Your task to perform on an android device: add a label to a message in the gmail app Image 0: 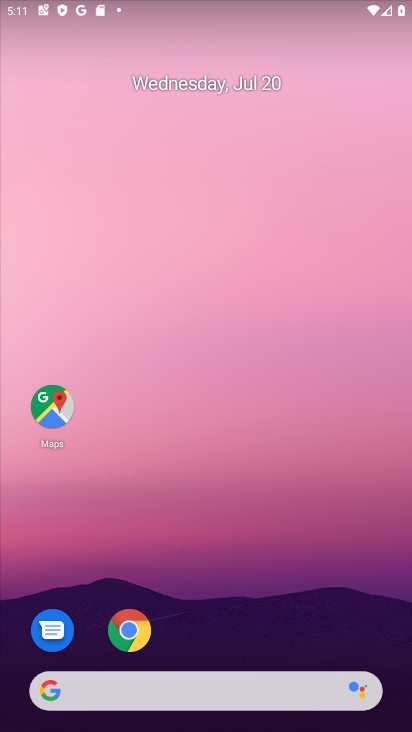
Step 0: drag from (189, 699) to (141, 109)
Your task to perform on an android device: add a label to a message in the gmail app Image 1: 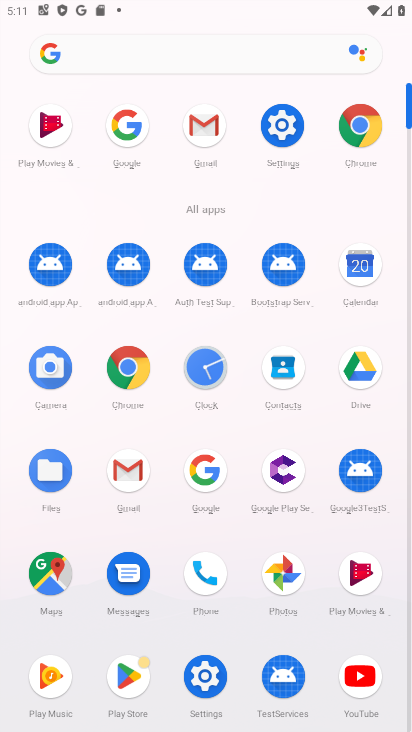
Step 1: click (202, 124)
Your task to perform on an android device: add a label to a message in the gmail app Image 2: 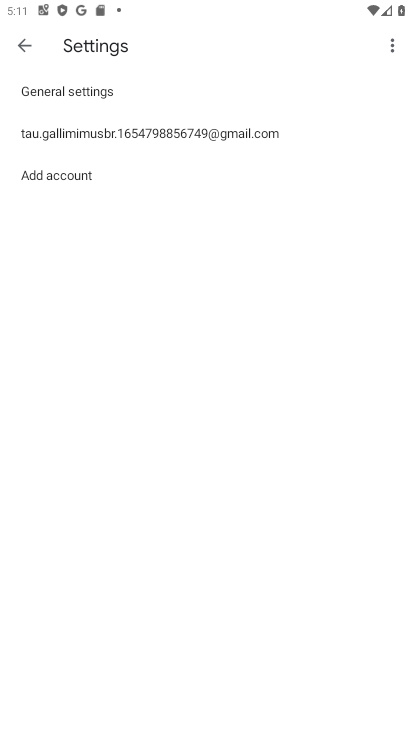
Step 2: press back button
Your task to perform on an android device: add a label to a message in the gmail app Image 3: 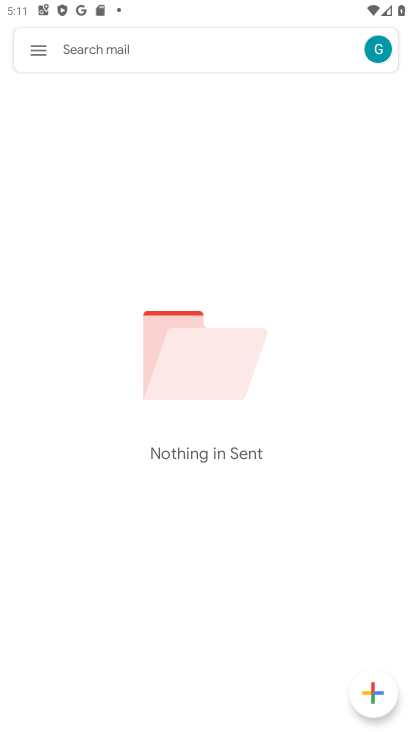
Step 3: click (39, 49)
Your task to perform on an android device: add a label to a message in the gmail app Image 4: 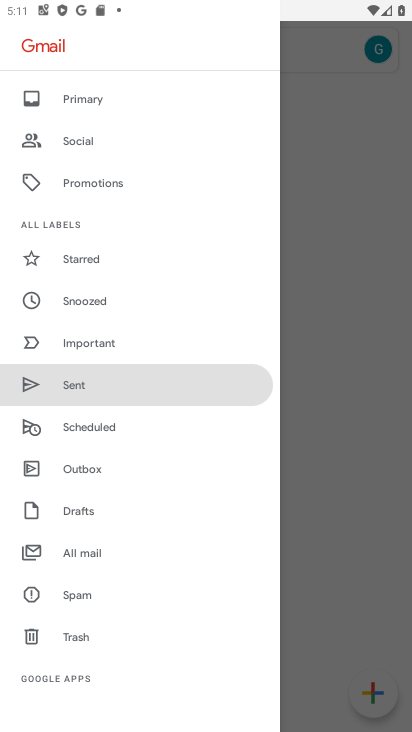
Step 4: click (77, 254)
Your task to perform on an android device: add a label to a message in the gmail app Image 5: 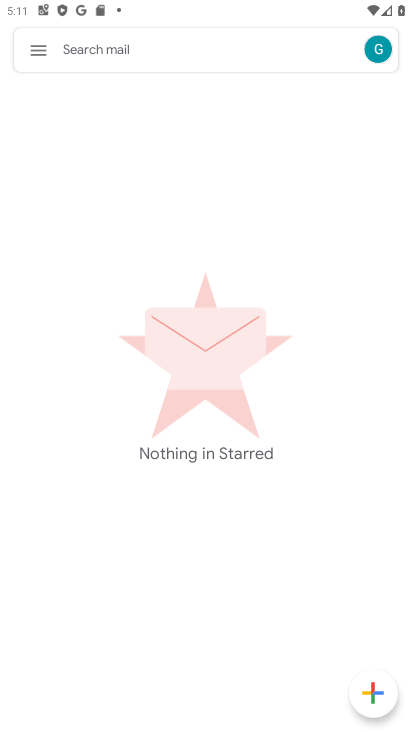
Step 5: click (38, 49)
Your task to perform on an android device: add a label to a message in the gmail app Image 6: 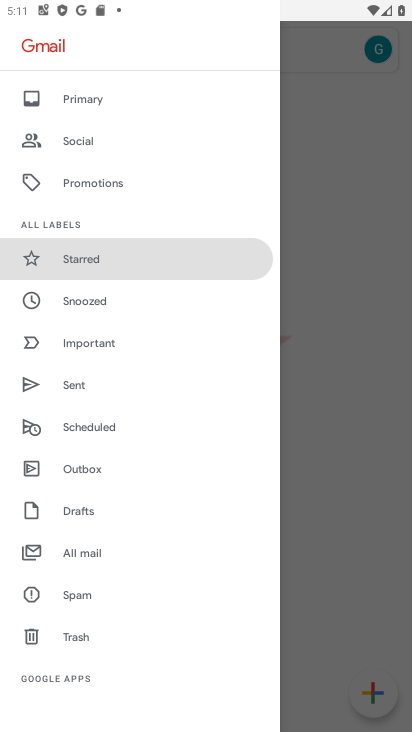
Step 6: click (78, 294)
Your task to perform on an android device: add a label to a message in the gmail app Image 7: 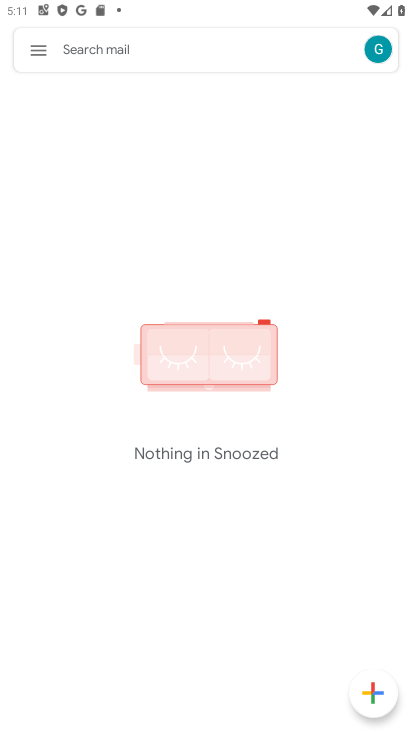
Step 7: click (33, 51)
Your task to perform on an android device: add a label to a message in the gmail app Image 8: 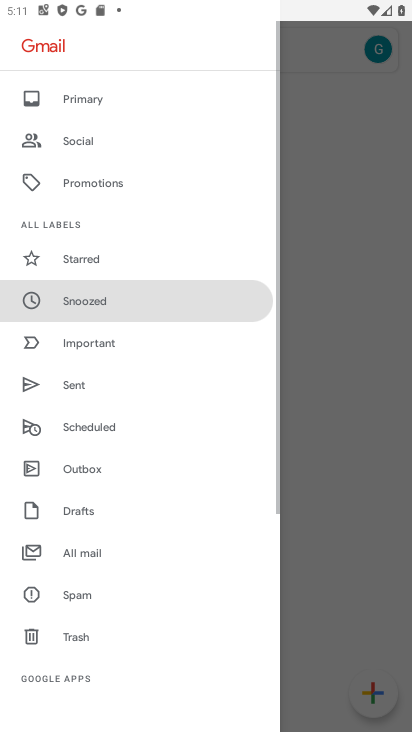
Step 8: click (71, 347)
Your task to perform on an android device: add a label to a message in the gmail app Image 9: 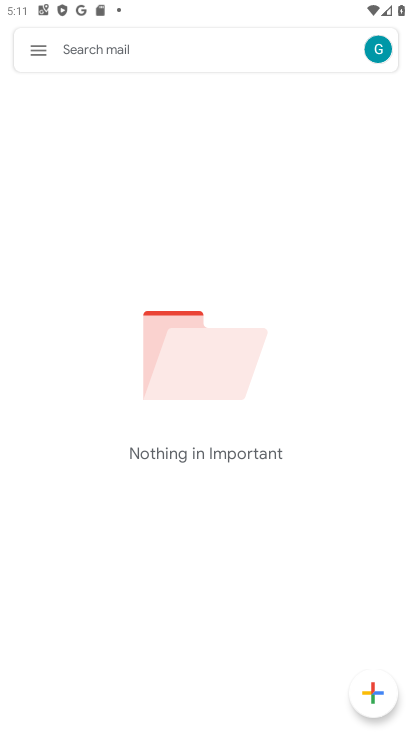
Step 9: click (37, 46)
Your task to perform on an android device: add a label to a message in the gmail app Image 10: 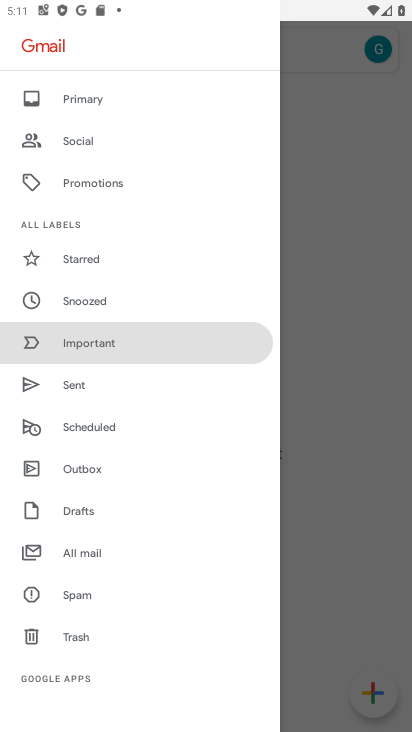
Step 10: click (77, 389)
Your task to perform on an android device: add a label to a message in the gmail app Image 11: 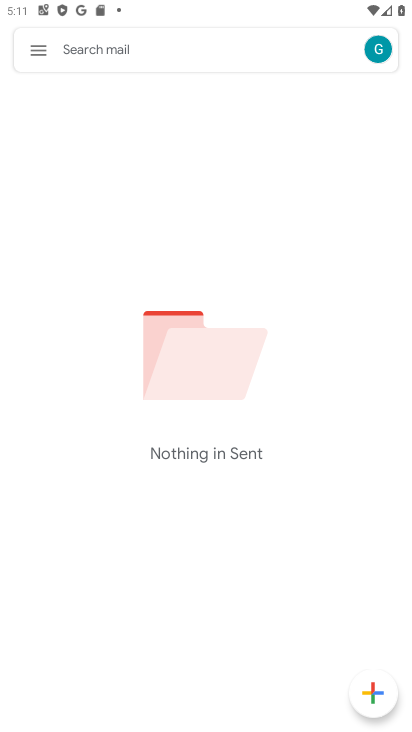
Step 11: click (39, 51)
Your task to perform on an android device: add a label to a message in the gmail app Image 12: 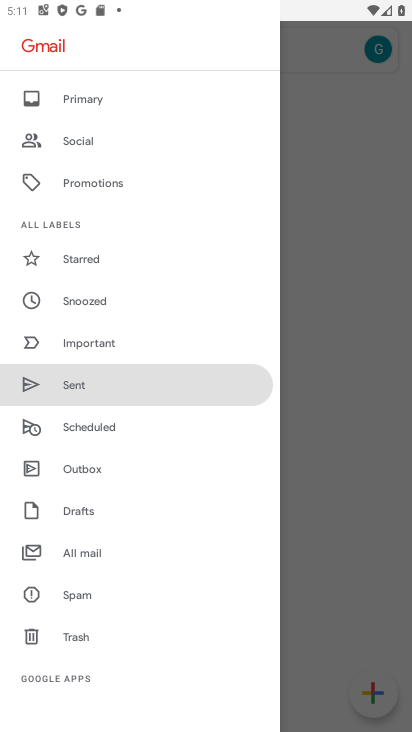
Step 12: click (82, 426)
Your task to perform on an android device: add a label to a message in the gmail app Image 13: 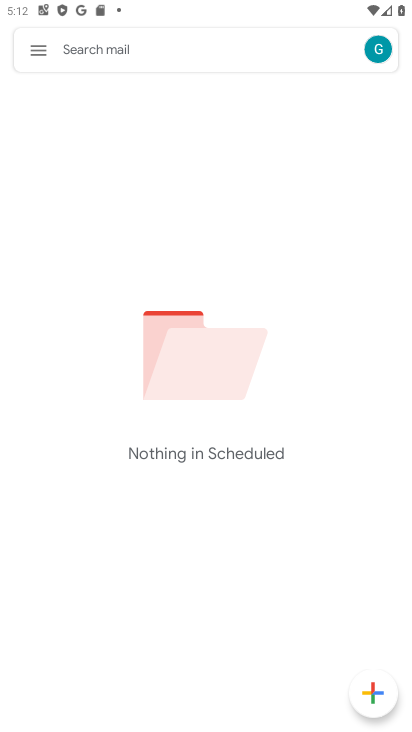
Step 13: click (44, 49)
Your task to perform on an android device: add a label to a message in the gmail app Image 14: 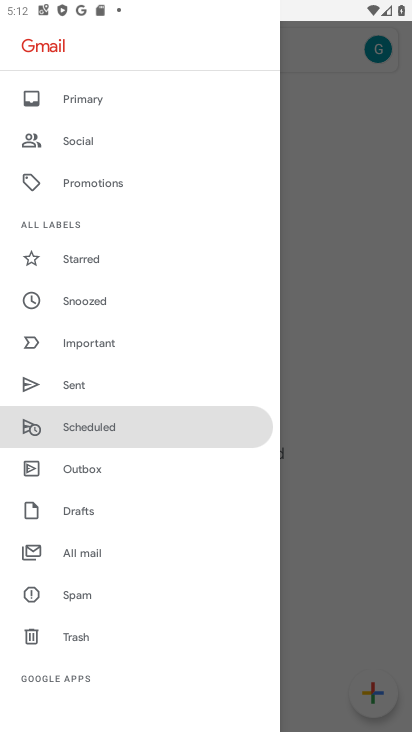
Step 14: click (73, 469)
Your task to perform on an android device: add a label to a message in the gmail app Image 15: 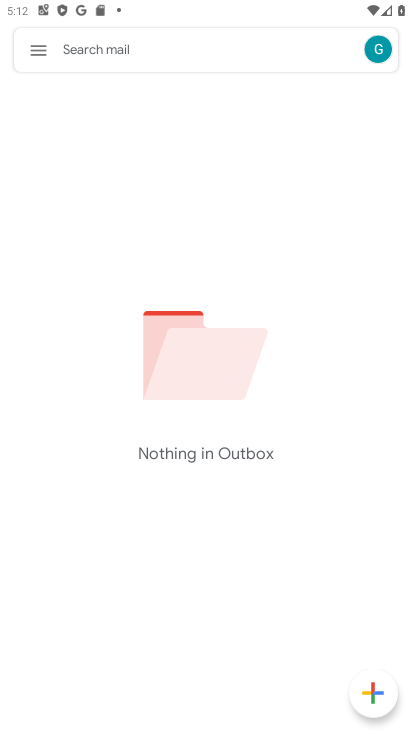
Step 15: click (33, 51)
Your task to perform on an android device: add a label to a message in the gmail app Image 16: 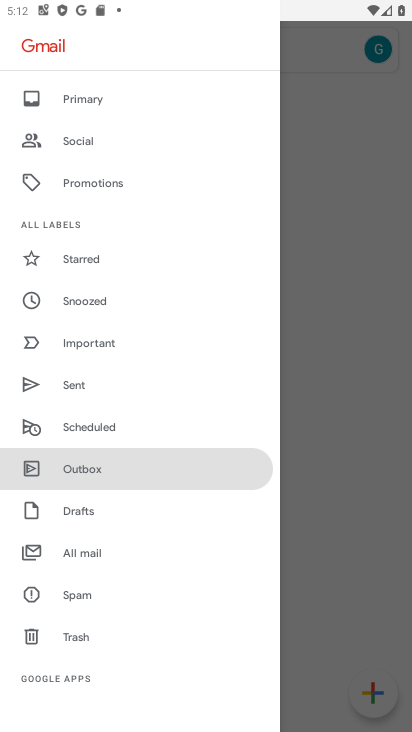
Step 16: click (69, 509)
Your task to perform on an android device: add a label to a message in the gmail app Image 17: 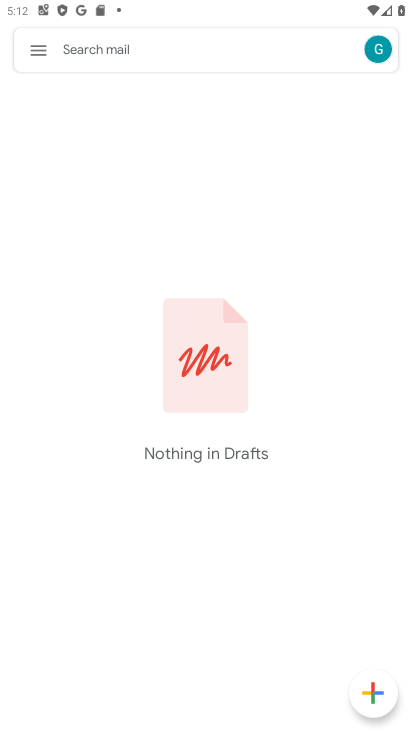
Step 17: click (42, 53)
Your task to perform on an android device: add a label to a message in the gmail app Image 18: 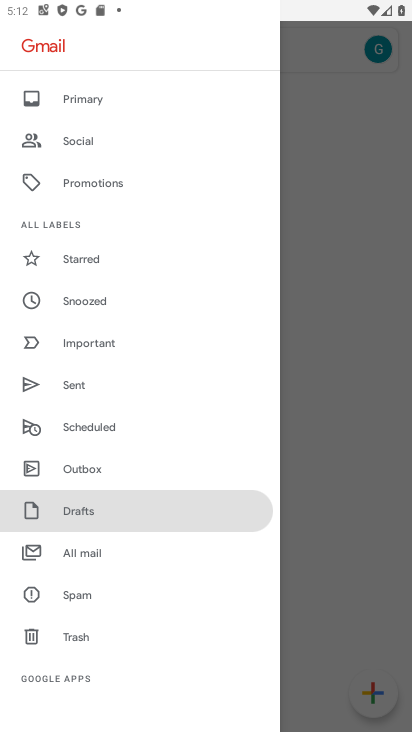
Step 18: drag from (88, 542) to (162, 356)
Your task to perform on an android device: add a label to a message in the gmail app Image 19: 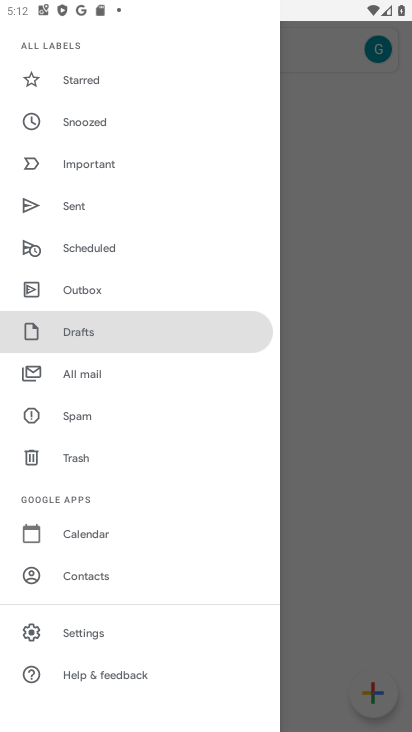
Step 19: click (91, 365)
Your task to perform on an android device: add a label to a message in the gmail app Image 20: 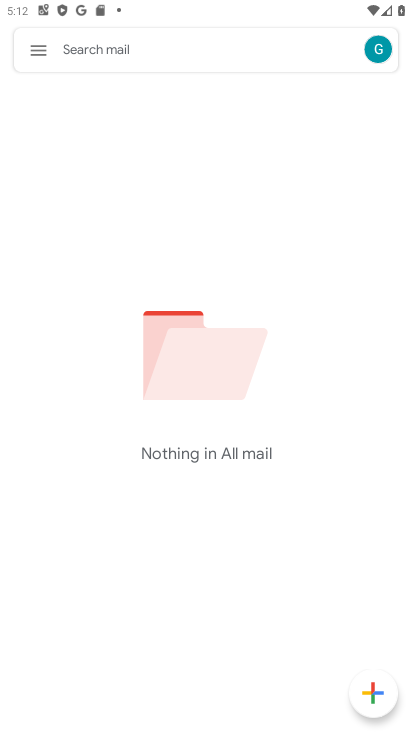
Step 20: click (50, 51)
Your task to perform on an android device: add a label to a message in the gmail app Image 21: 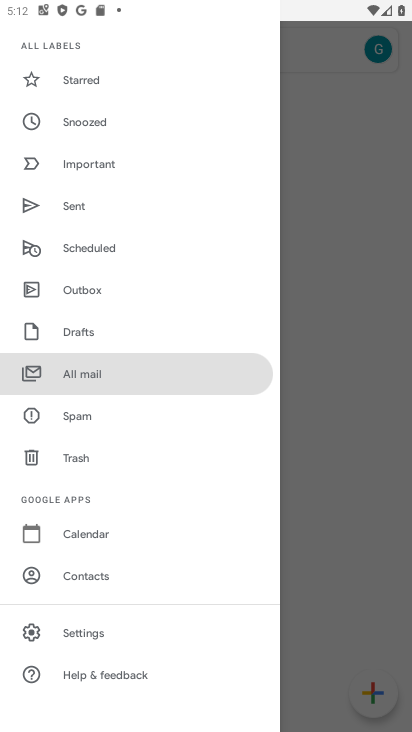
Step 21: click (75, 419)
Your task to perform on an android device: add a label to a message in the gmail app Image 22: 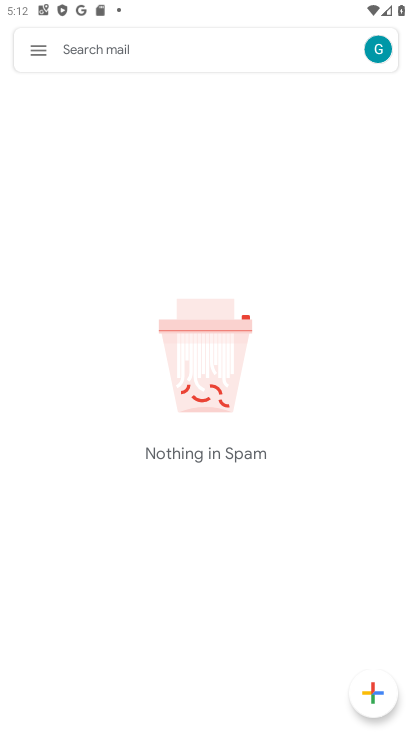
Step 22: task complete